Your task to perform on an android device: check data usage Image 0: 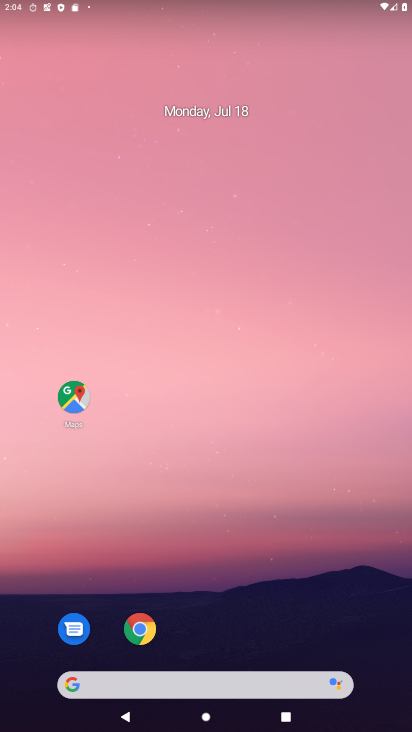
Step 0: press home button
Your task to perform on an android device: check data usage Image 1: 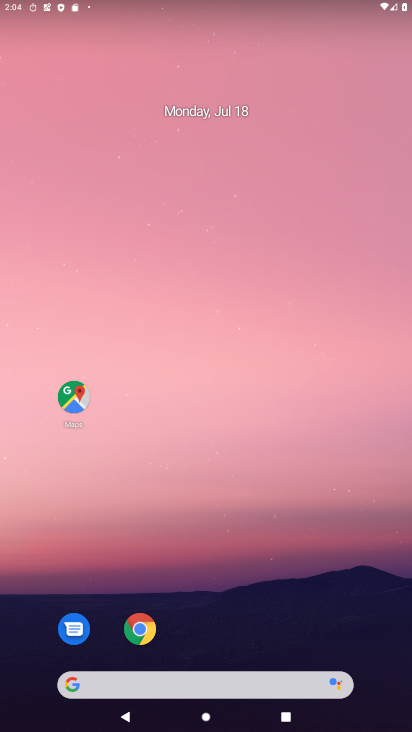
Step 1: drag from (212, 655) to (236, 27)
Your task to perform on an android device: check data usage Image 2: 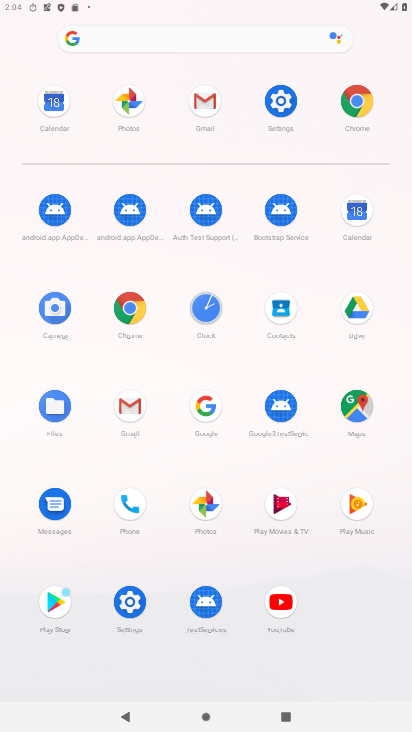
Step 2: click (277, 94)
Your task to perform on an android device: check data usage Image 3: 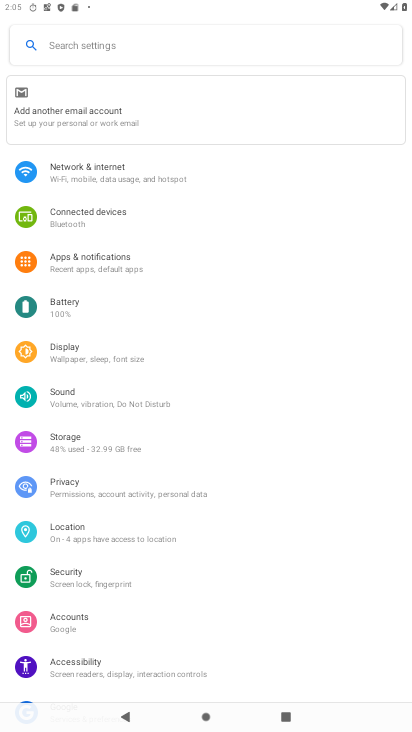
Step 3: click (116, 177)
Your task to perform on an android device: check data usage Image 4: 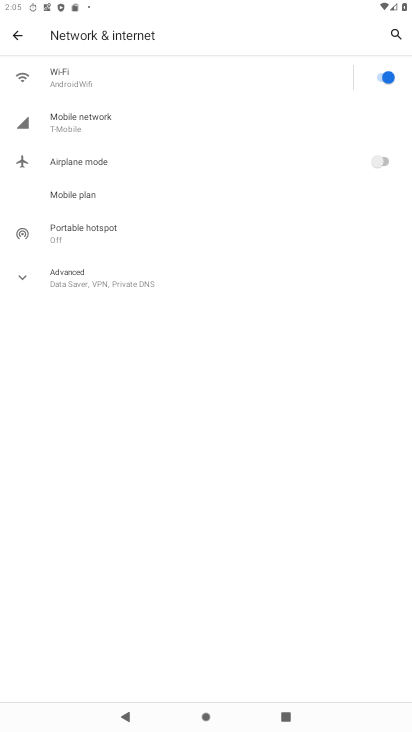
Step 4: click (90, 128)
Your task to perform on an android device: check data usage Image 5: 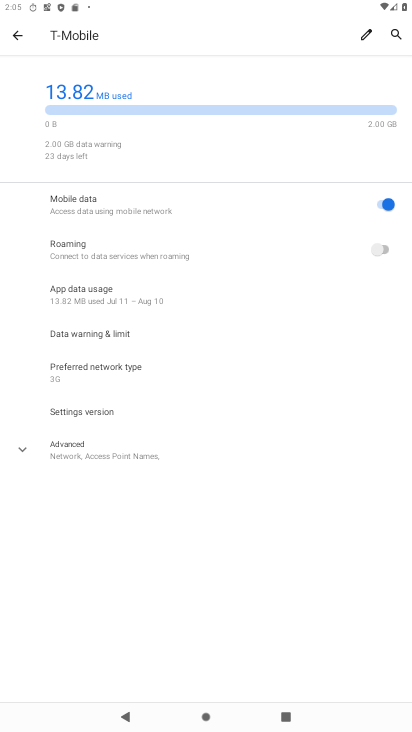
Step 5: click (132, 296)
Your task to perform on an android device: check data usage Image 6: 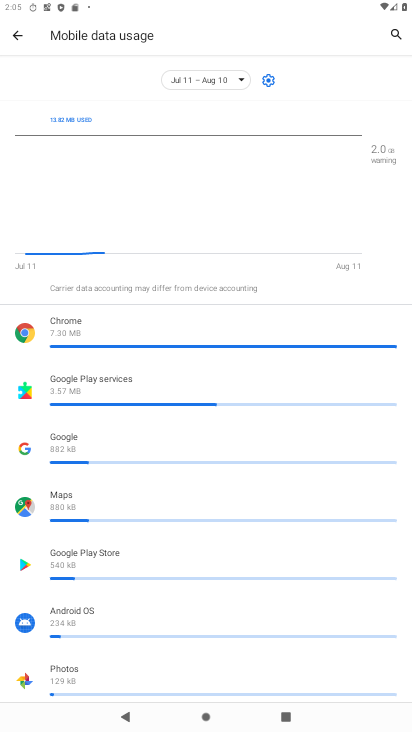
Step 6: task complete